Your task to perform on an android device: toggle notification dots Image 0: 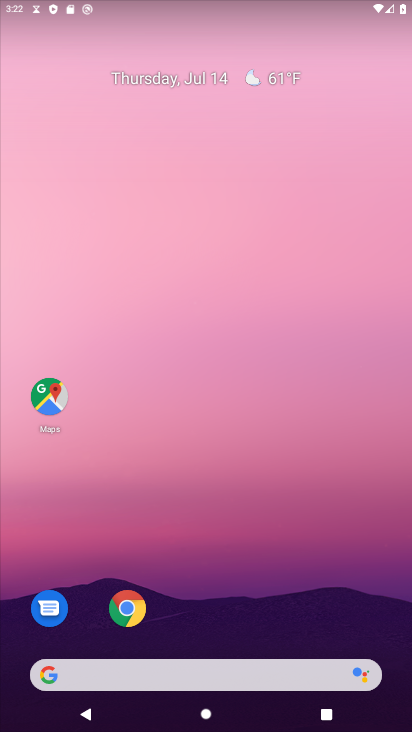
Step 0: drag from (203, 667) to (273, 21)
Your task to perform on an android device: toggle notification dots Image 1: 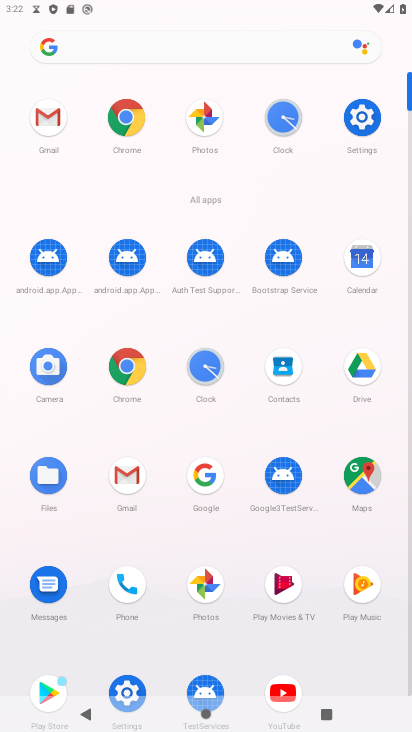
Step 1: click (129, 683)
Your task to perform on an android device: toggle notification dots Image 2: 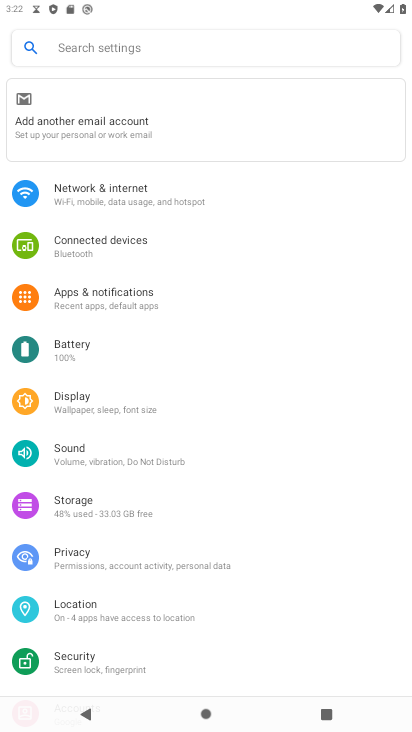
Step 2: click (117, 305)
Your task to perform on an android device: toggle notification dots Image 3: 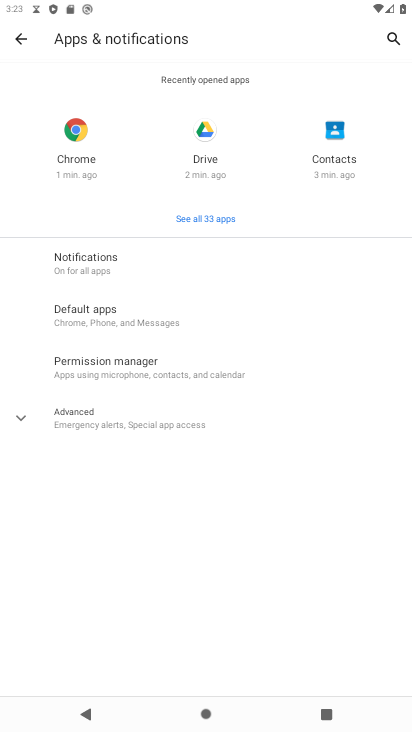
Step 3: click (122, 256)
Your task to perform on an android device: toggle notification dots Image 4: 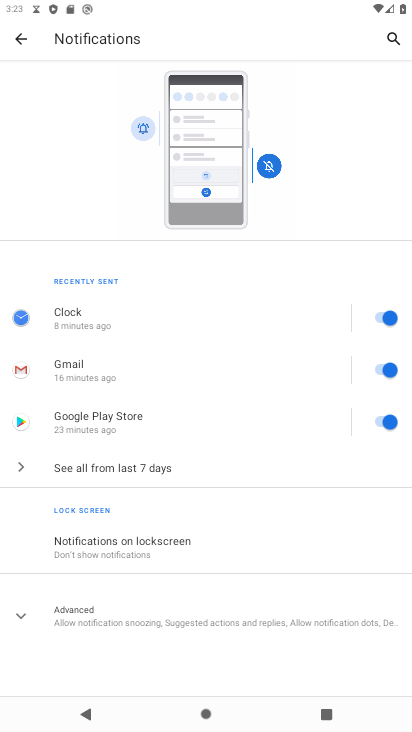
Step 4: click (155, 588)
Your task to perform on an android device: toggle notification dots Image 5: 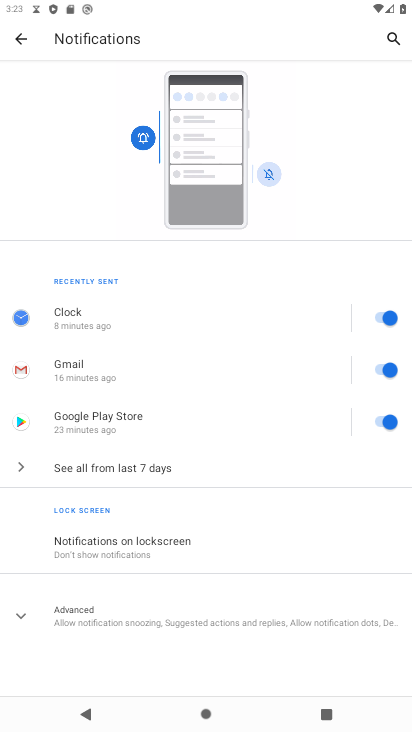
Step 5: click (241, 616)
Your task to perform on an android device: toggle notification dots Image 6: 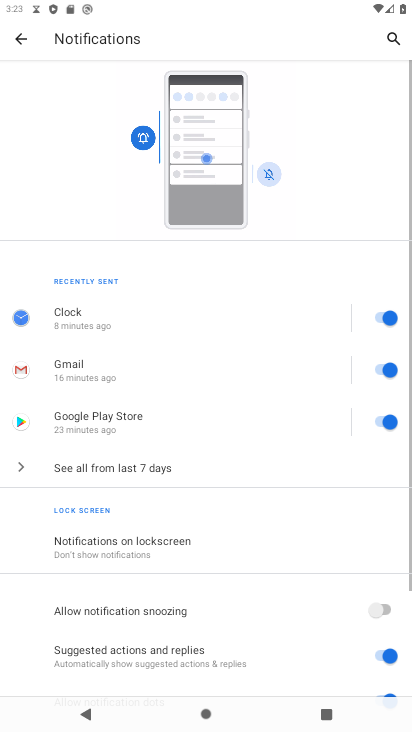
Step 6: drag from (242, 620) to (219, 396)
Your task to perform on an android device: toggle notification dots Image 7: 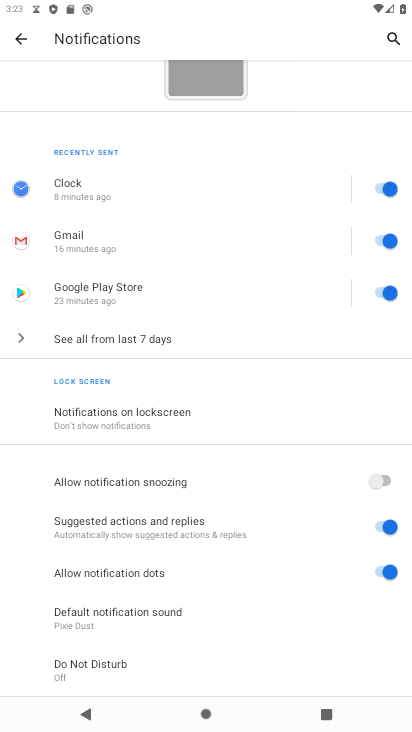
Step 7: click (379, 576)
Your task to perform on an android device: toggle notification dots Image 8: 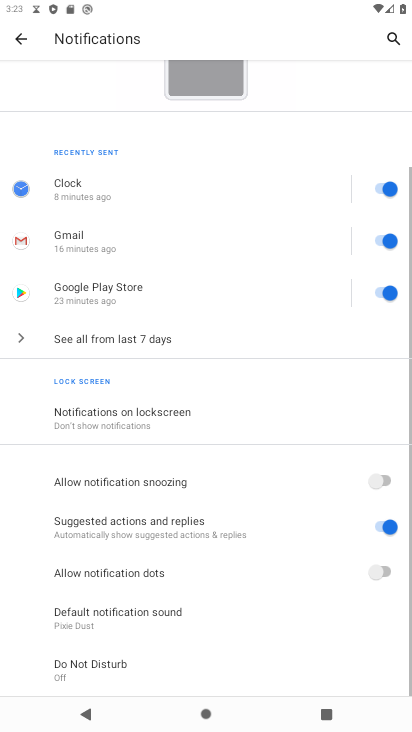
Step 8: task complete